Your task to perform on an android device: Go to wifi settings Image 0: 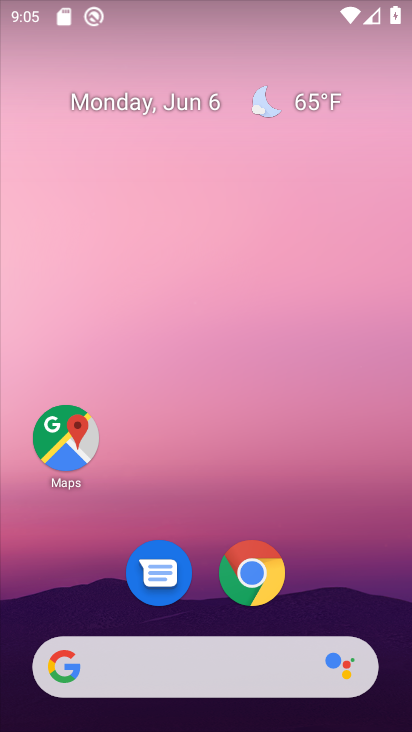
Step 0: drag from (375, 608) to (392, 13)
Your task to perform on an android device: Go to wifi settings Image 1: 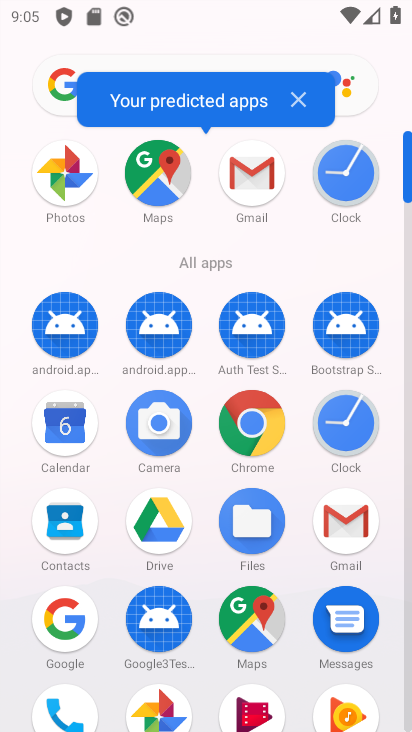
Step 1: click (407, 688)
Your task to perform on an android device: Go to wifi settings Image 2: 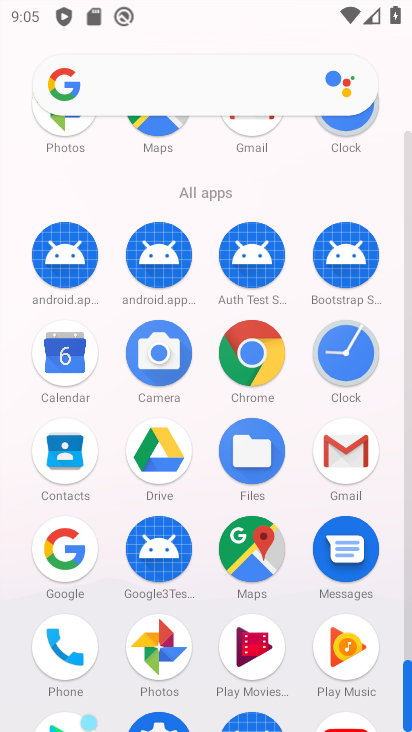
Step 2: drag from (399, 624) to (405, 416)
Your task to perform on an android device: Go to wifi settings Image 3: 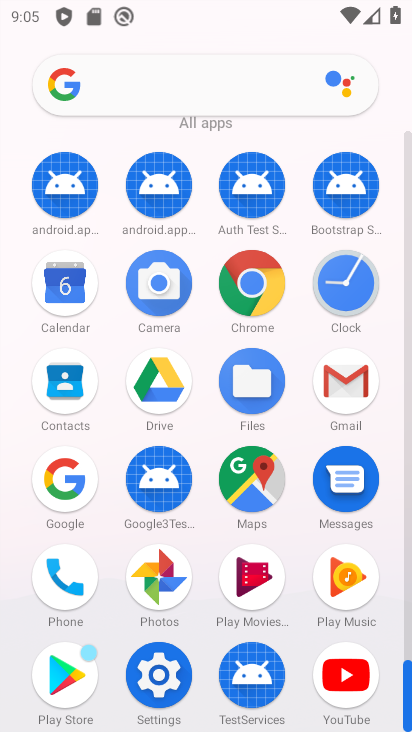
Step 3: click (164, 667)
Your task to perform on an android device: Go to wifi settings Image 4: 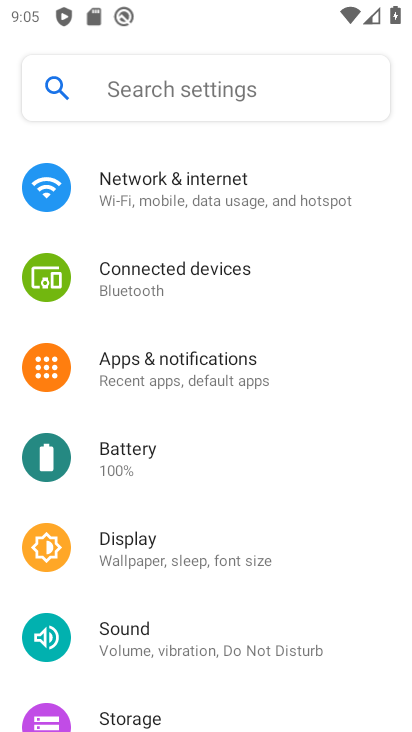
Step 4: click (266, 204)
Your task to perform on an android device: Go to wifi settings Image 5: 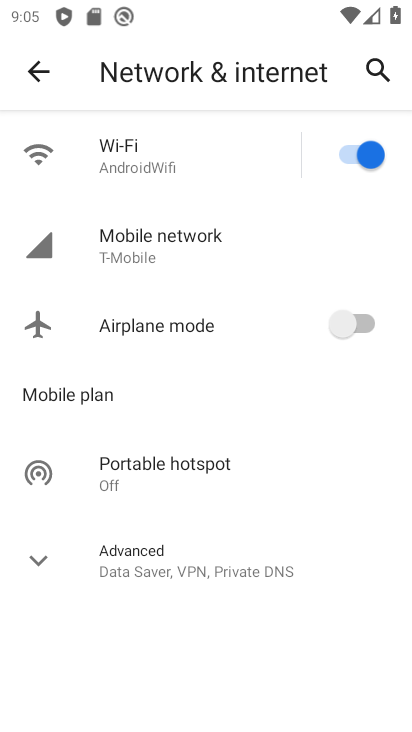
Step 5: click (184, 149)
Your task to perform on an android device: Go to wifi settings Image 6: 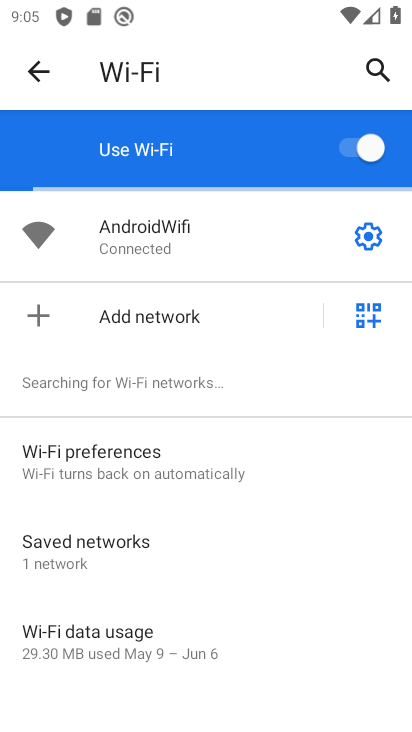
Step 6: task complete